Your task to perform on an android device: Search for "razer blackwidow" on amazon.com, select the first entry, add it to the cart, then select checkout. Image 0: 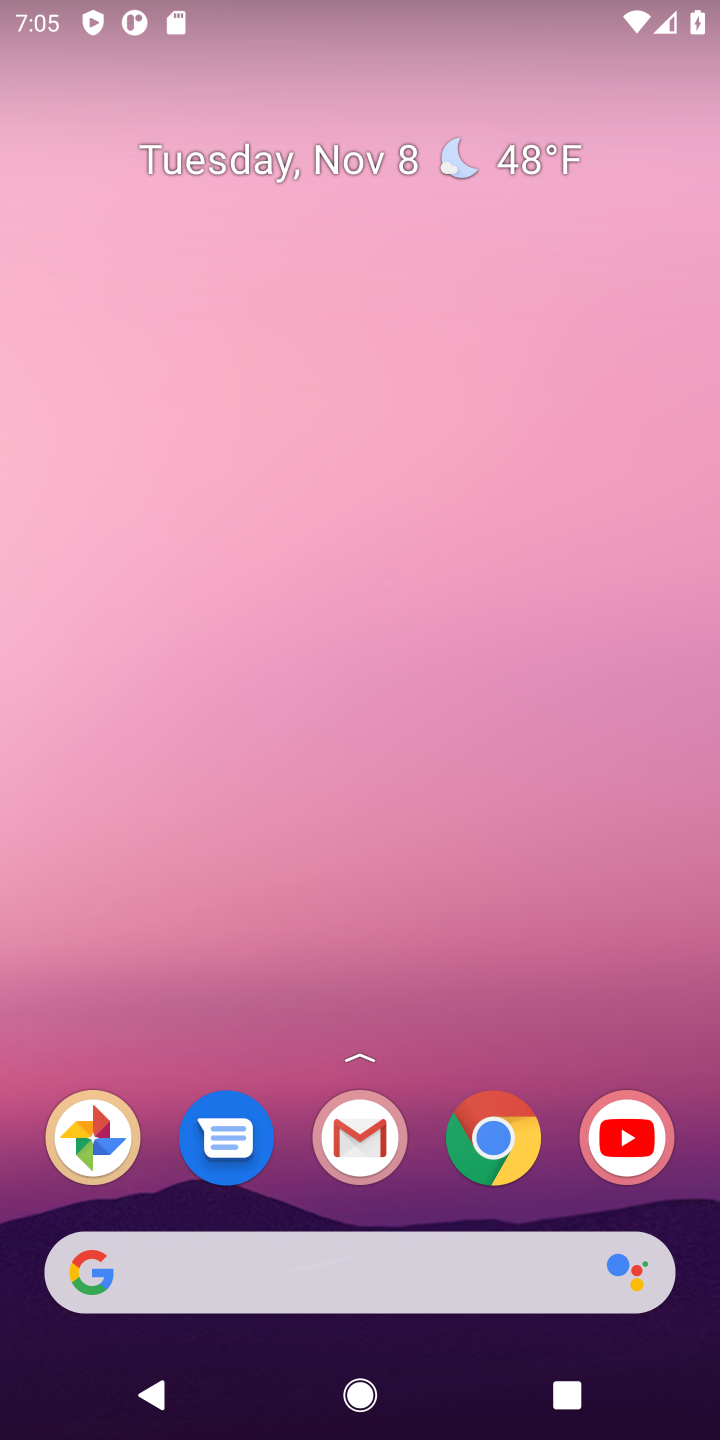
Step 0: click (496, 1143)
Your task to perform on an android device: Search for "razer blackwidow" on amazon.com, select the first entry, add it to the cart, then select checkout. Image 1: 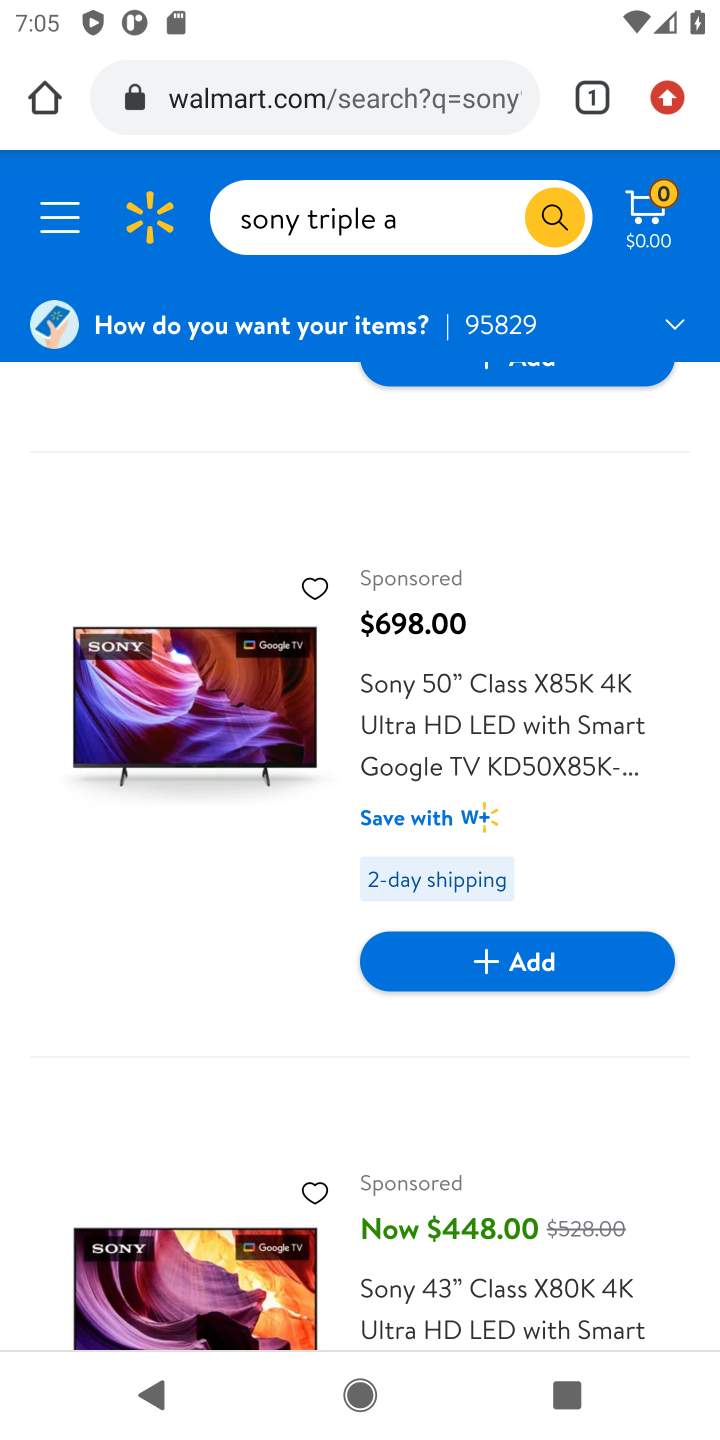
Step 1: click (478, 208)
Your task to perform on an android device: Search for "razer blackwidow" on amazon.com, select the first entry, add it to the cart, then select checkout. Image 2: 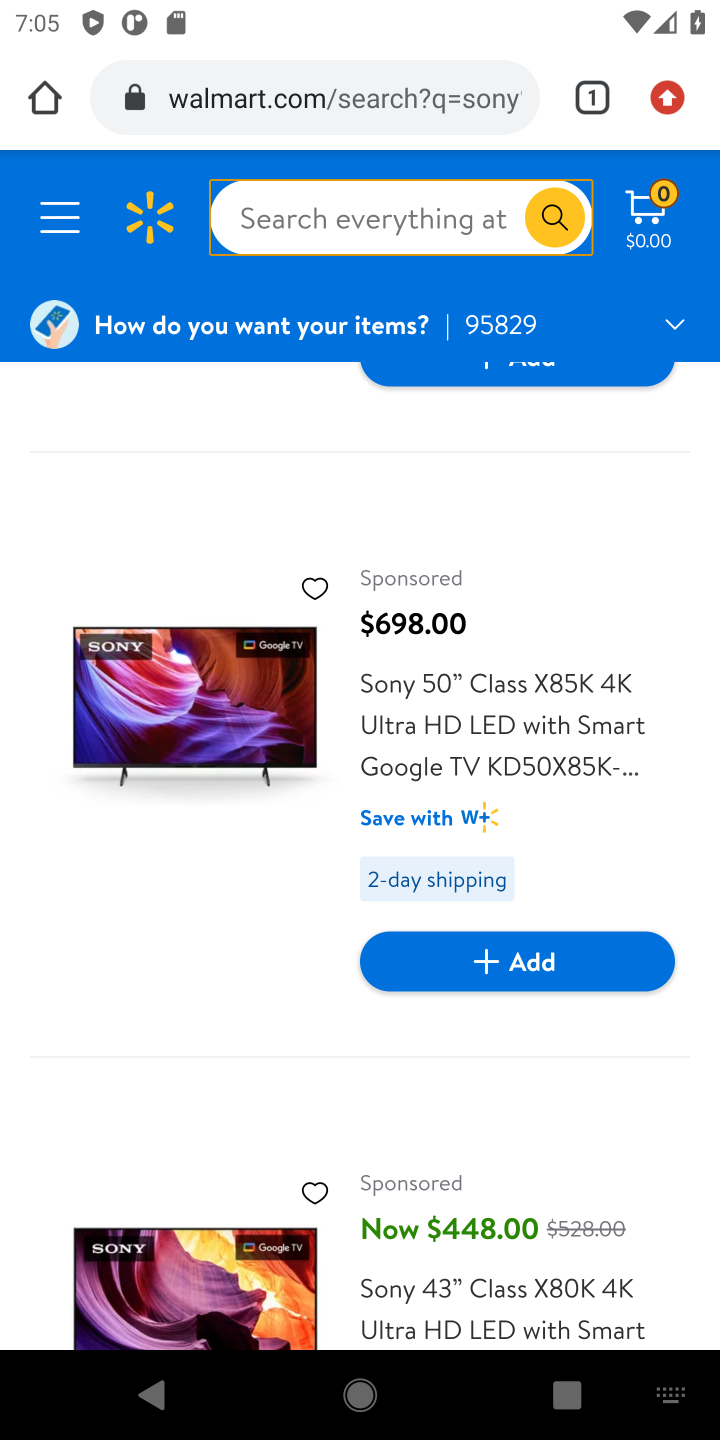
Step 2: click (425, 97)
Your task to perform on an android device: Search for "razer blackwidow" on amazon.com, select the first entry, add it to the cart, then select checkout. Image 3: 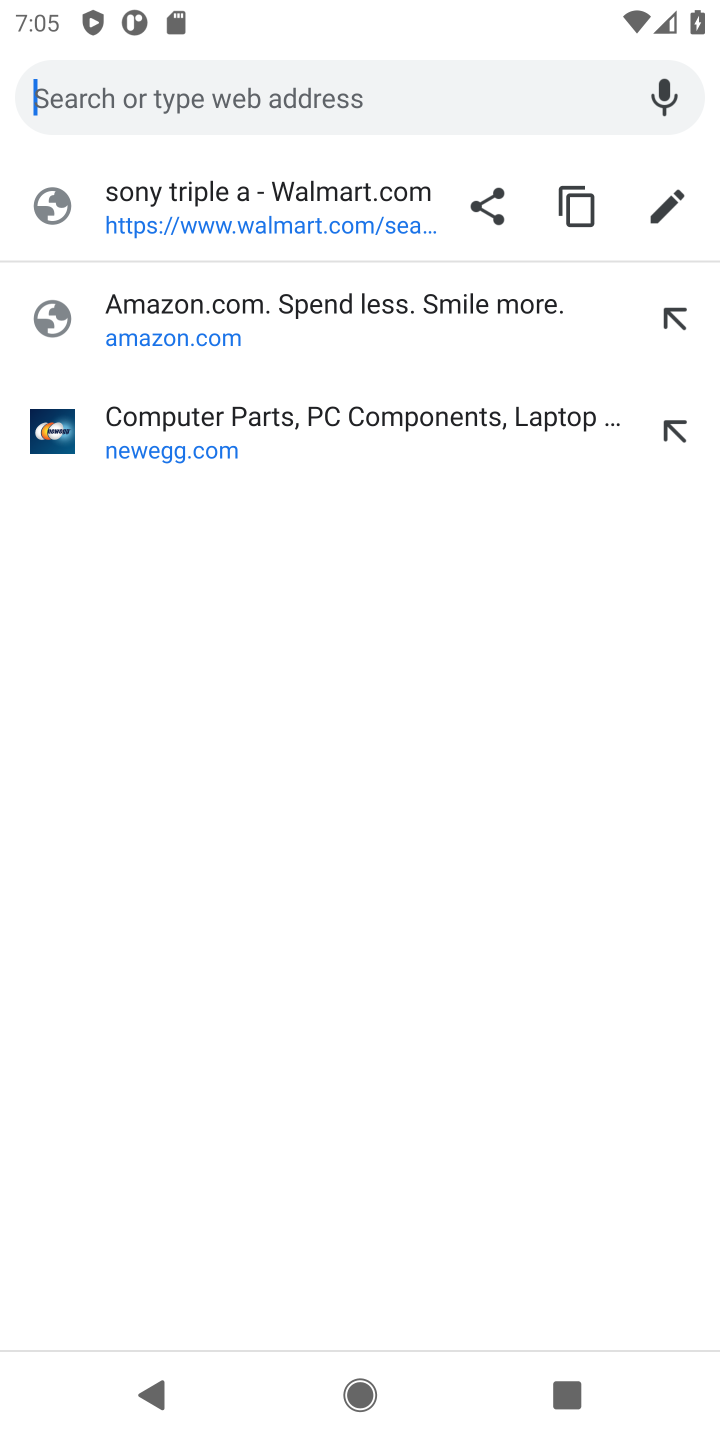
Step 3: click (208, 300)
Your task to perform on an android device: Search for "razer blackwidow" on amazon.com, select the first entry, add it to the cart, then select checkout. Image 4: 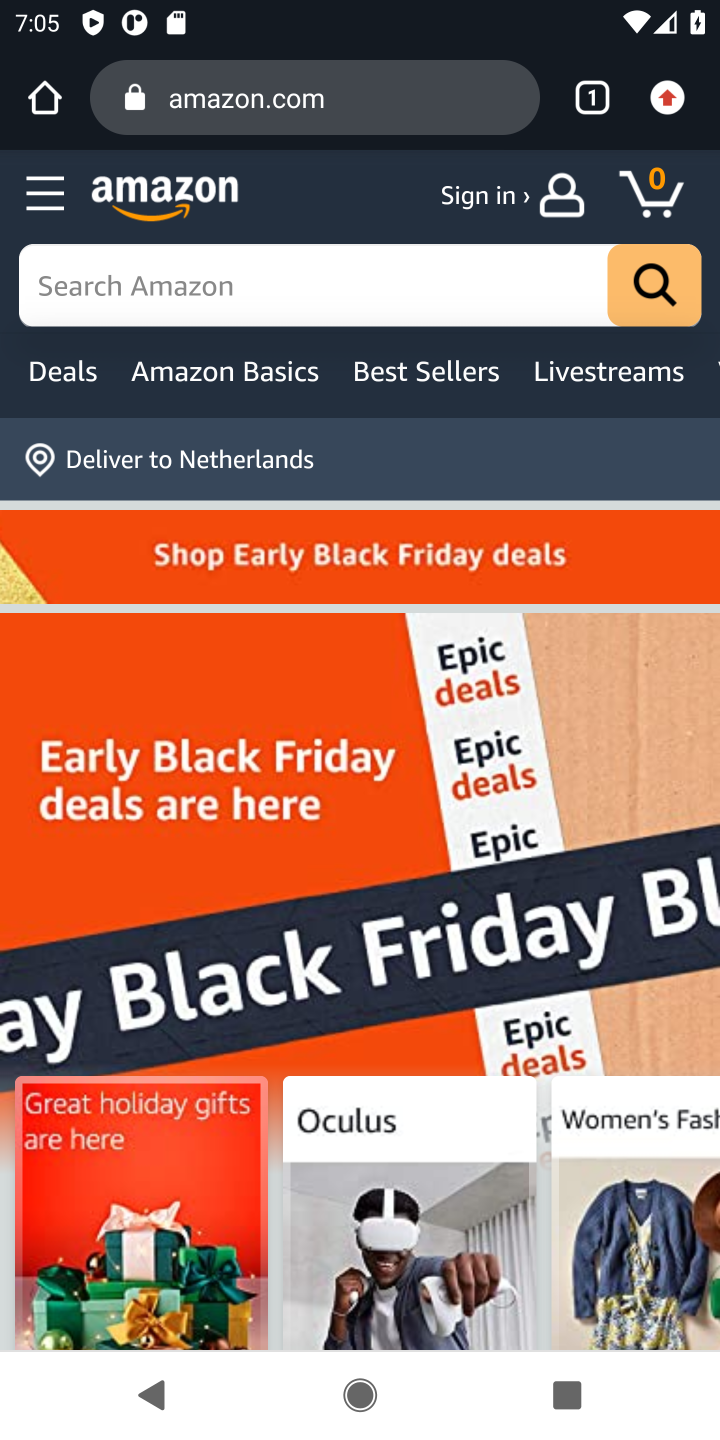
Step 4: click (200, 273)
Your task to perform on an android device: Search for "razer blackwidow" on amazon.com, select the first entry, add it to the cart, then select checkout. Image 5: 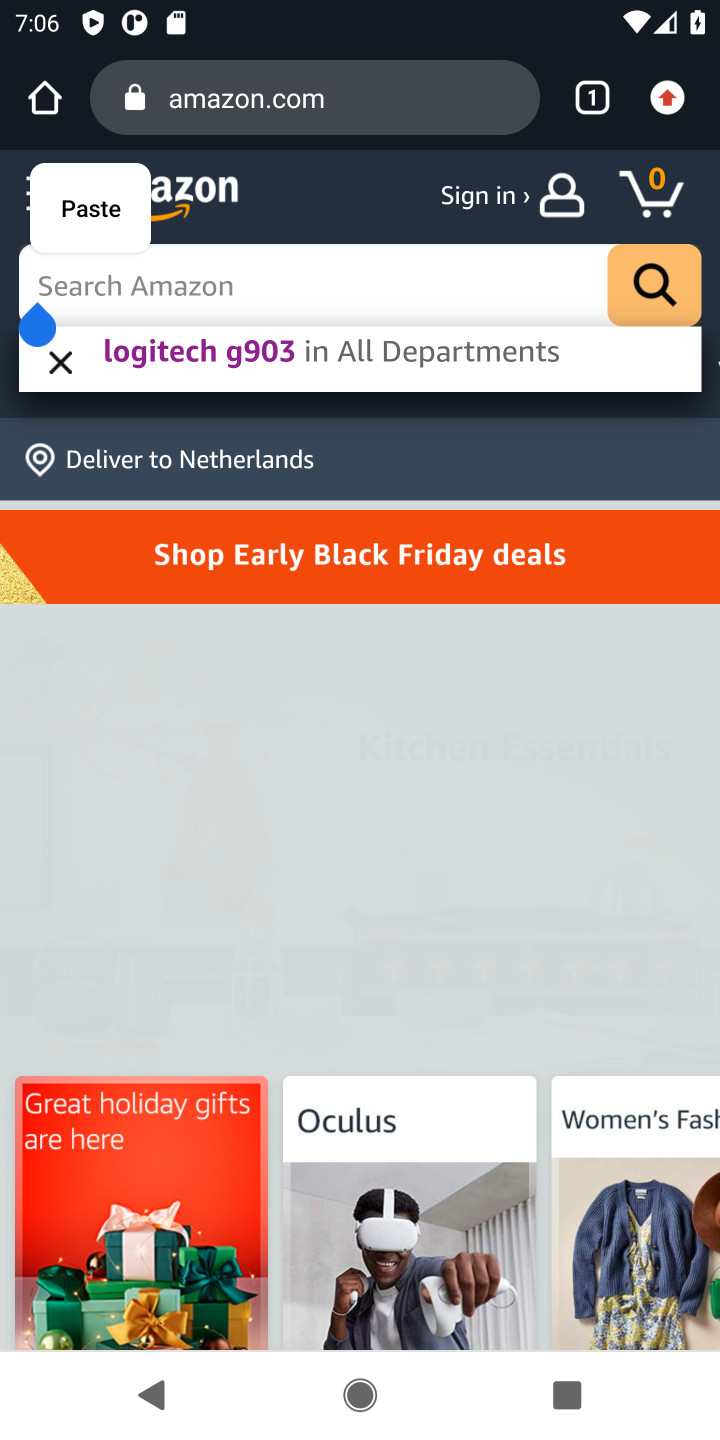
Step 5: type "razer blackwidow"
Your task to perform on an android device: Search for "razer blackwidow" on amazon.com, select the first entry, add it to the cart, then select checkout. Image 6: 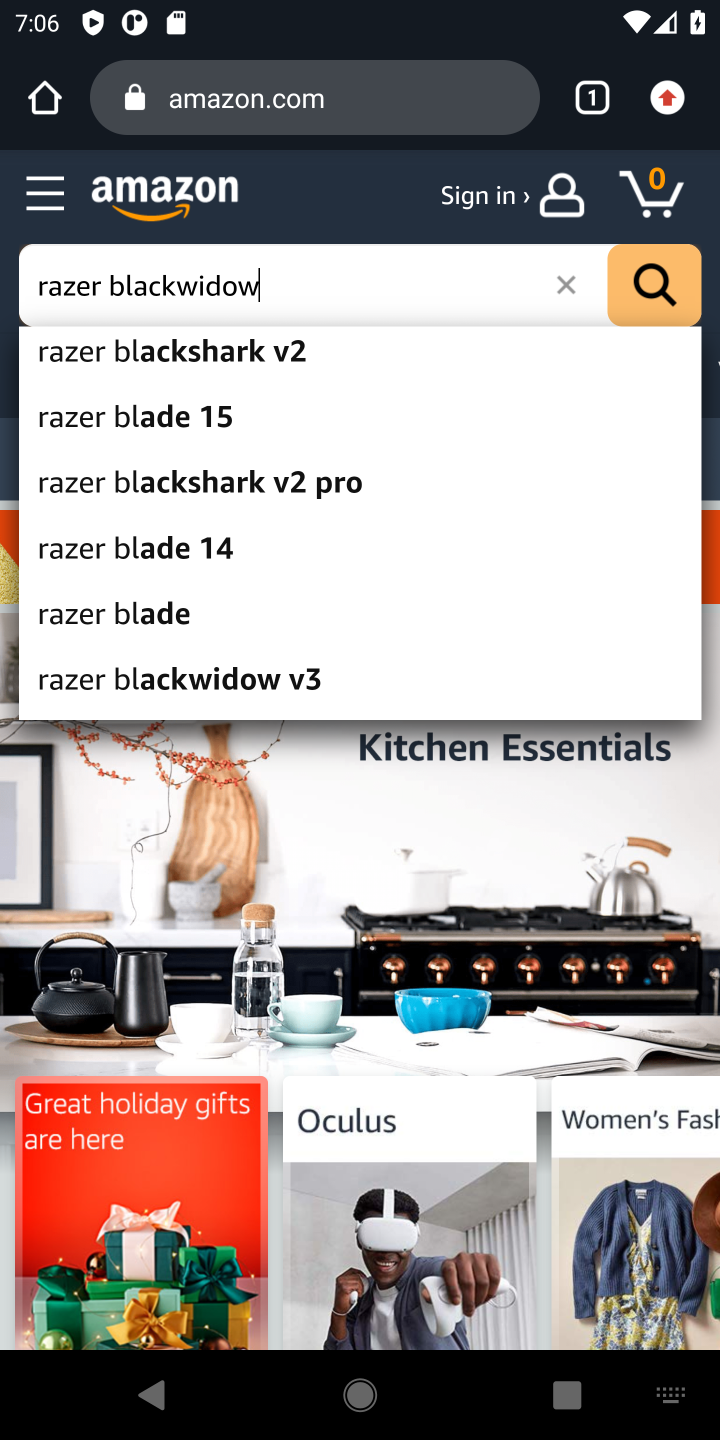
Step 6: press enter
Your task to perform on an android device: Search for "razer blackwidow" on amazon.com, select the first entry, add it to the cart, then select checkout. Image 7: 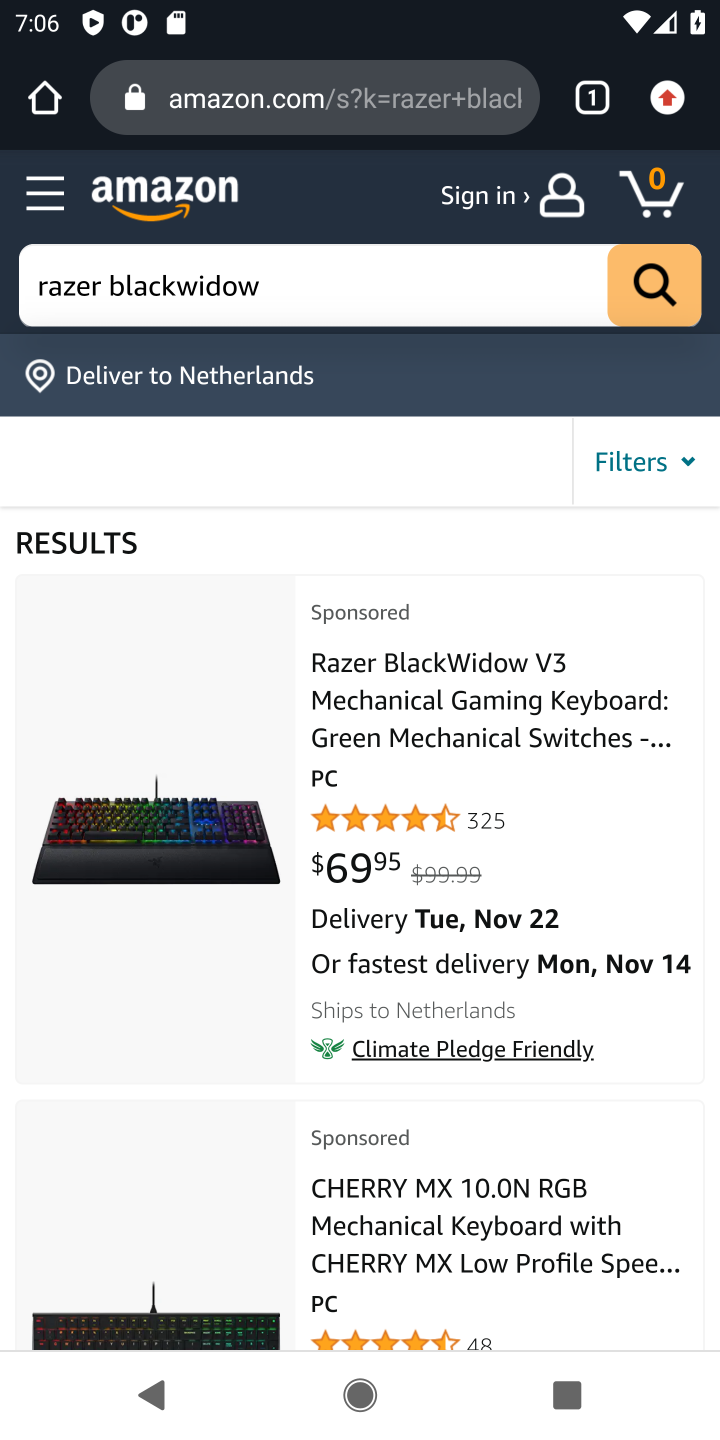
Step 7: click (519, 691)
Your task to perform on an android device: Search for "razer blackwidow" on amazon.com, select the first entry, add it to the cart, then select checkout. Image 8: 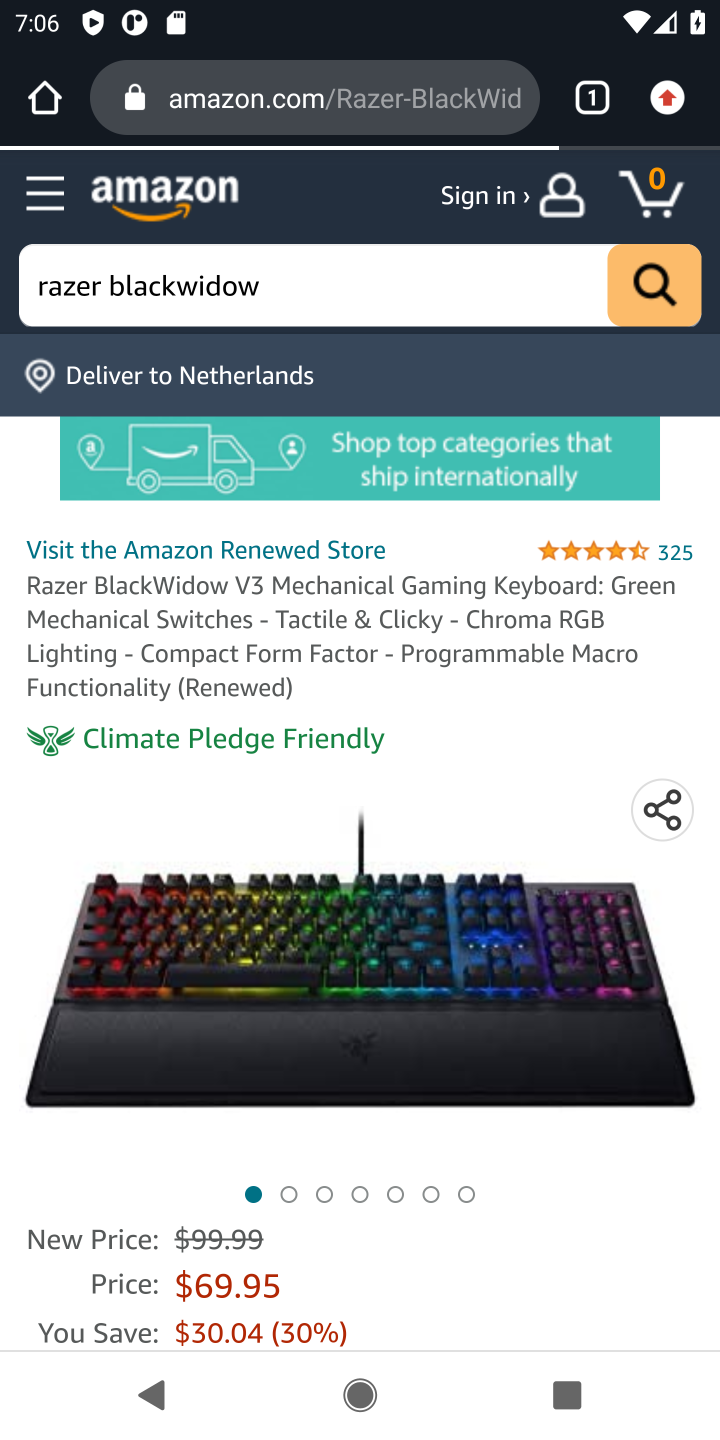
Step 8: drag from (494, 1299) to (554, 412)
Your task to perform on an android device: Search for "razer blackwidow" on amazon.com, select the first entry, add it to the cart, then select checkout. Image 9: 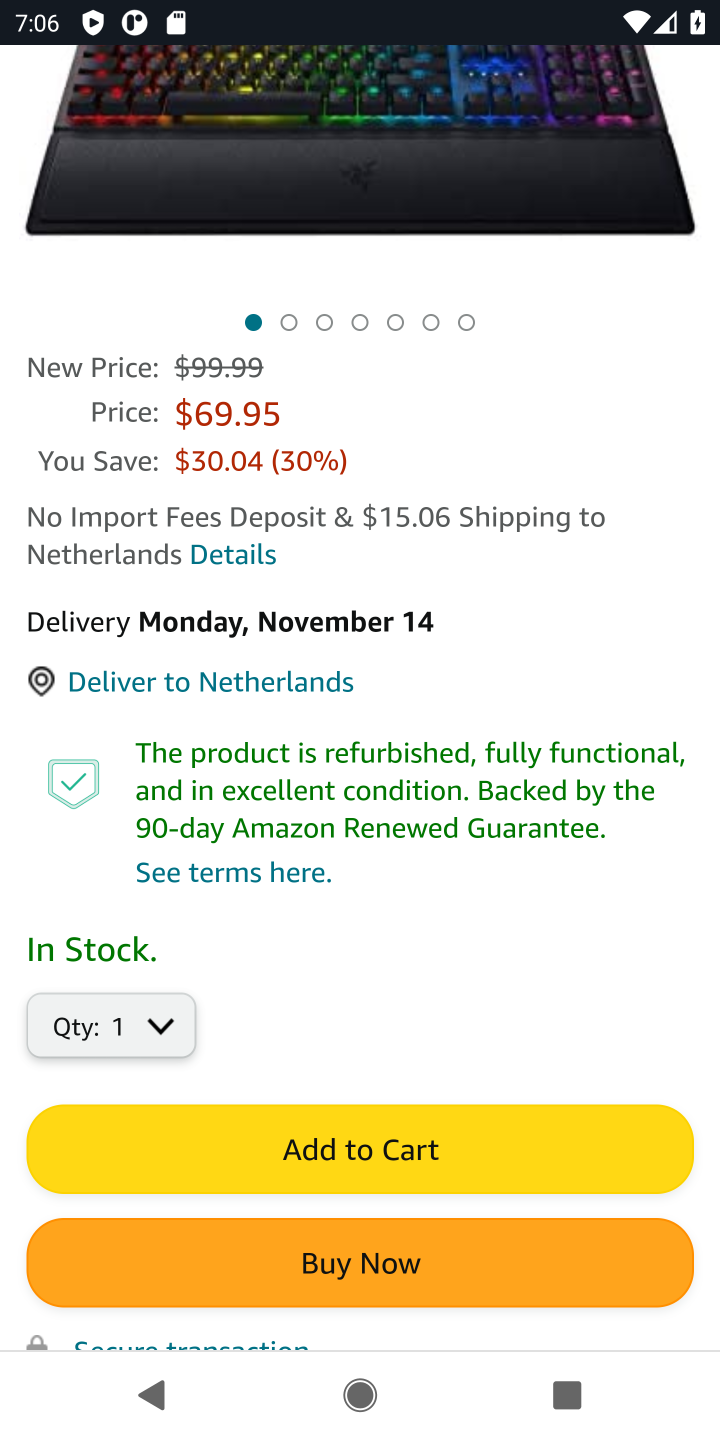
Step 9: click (346, 1147)
Your task to perform on an android device: Search for "razer blackwidow" on amazon.com, select the first entry, add it to the cart, then select checkout. Image 10: 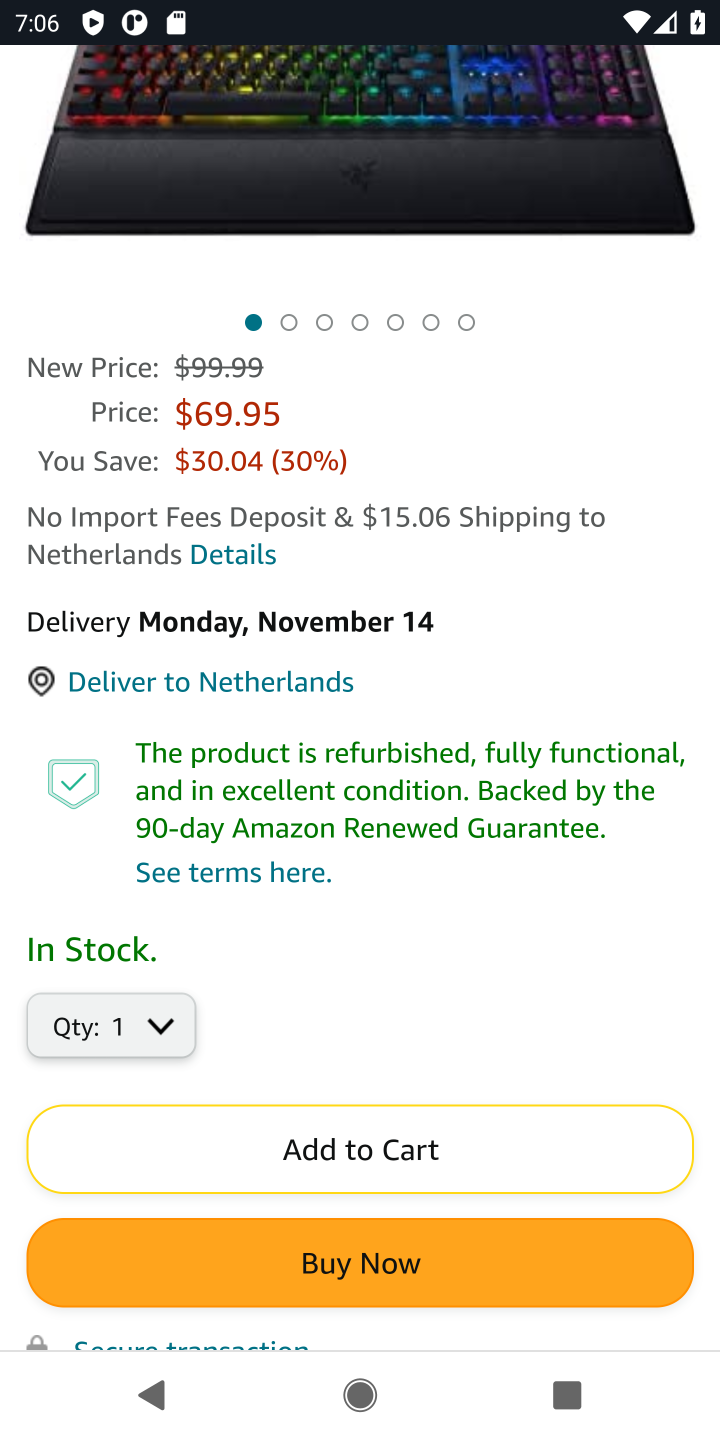
Step 10: drag from (632, 397) to (561, 1348)
Your task to perform on an android device: Search for "razer blackwidow" on amazon.com, select the first entry, add it to the cart, then select checkout. Image 11: 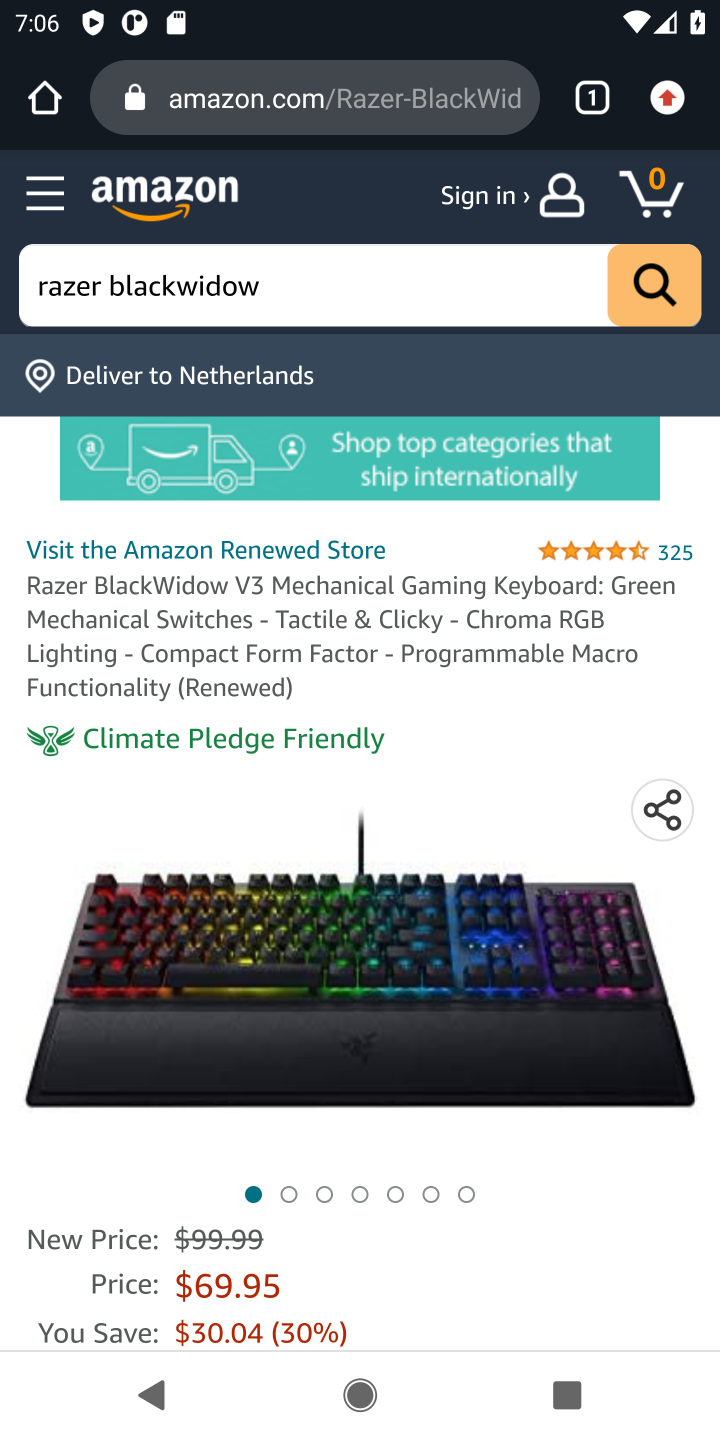
Step 11: drag from (502, 1134) to (569, 191)
Your task to perform on an android device: Search for "razer blackwidow" on amazon.com, select the first entry, add it to the cart, then select checkout. Image 12: 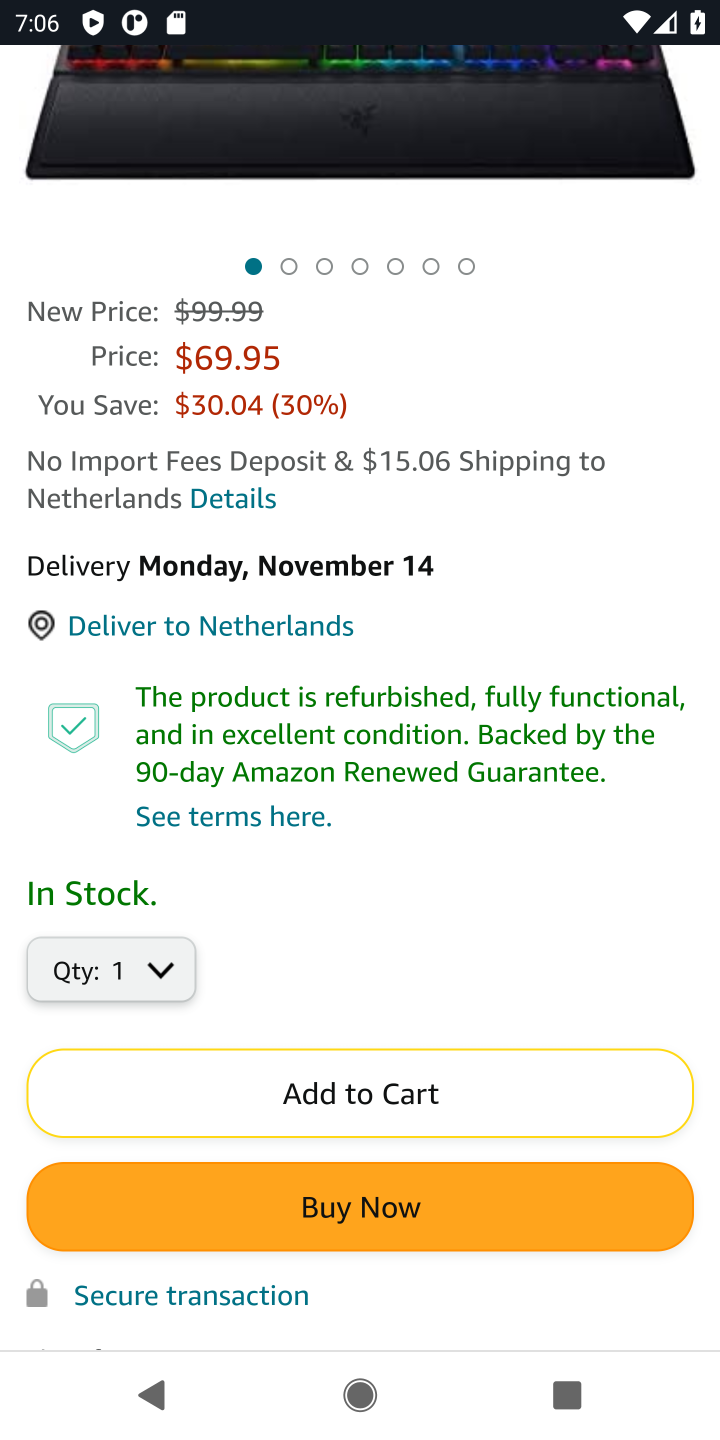
Step 12: click (357, 1087)
Your task to perform on an android device: Search for "razer blackwidow" on amazon.com, select the first entry, add it to the cart, then select checkout. Image 13: 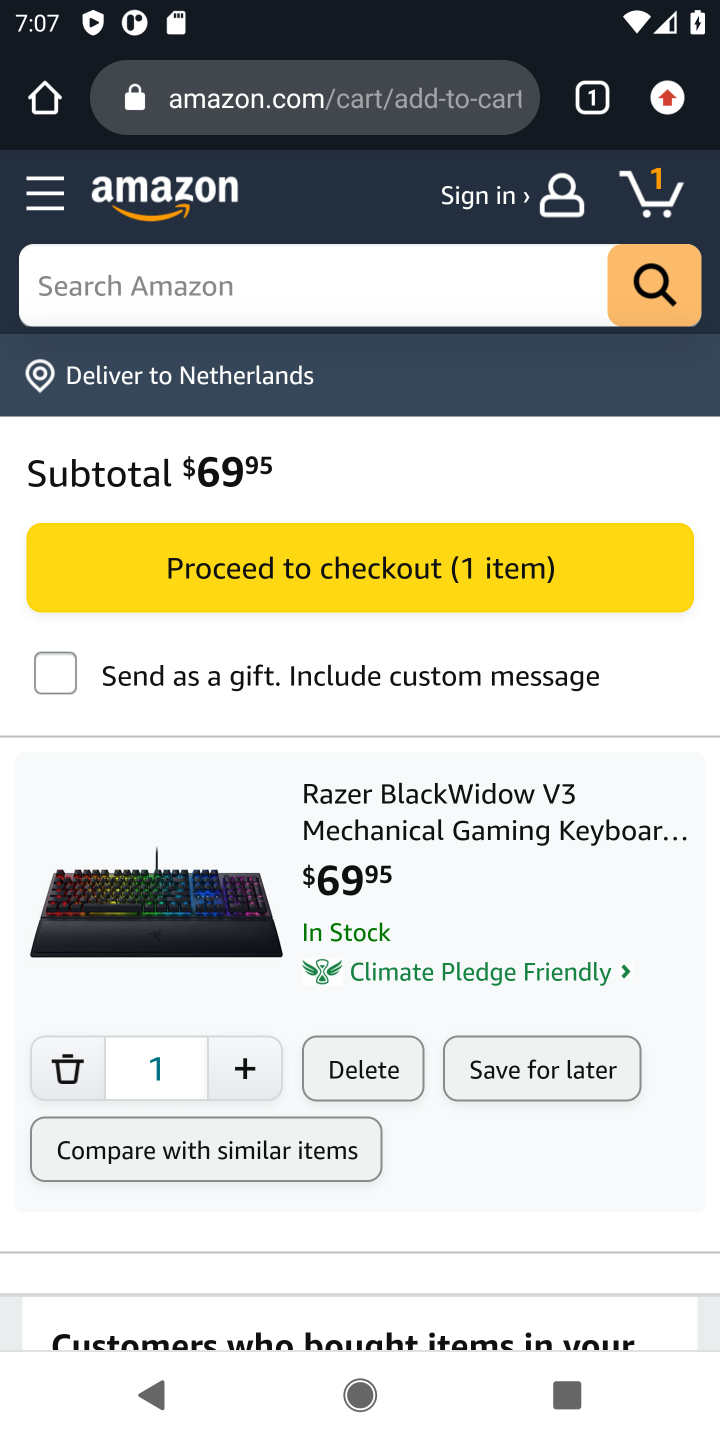
Step 13: click (661, 184)
Your task to perform on an android device: Search for "razer blackwidow" on amazon.com, select the first entry, add it to the cart, then select checkout. Image 14: 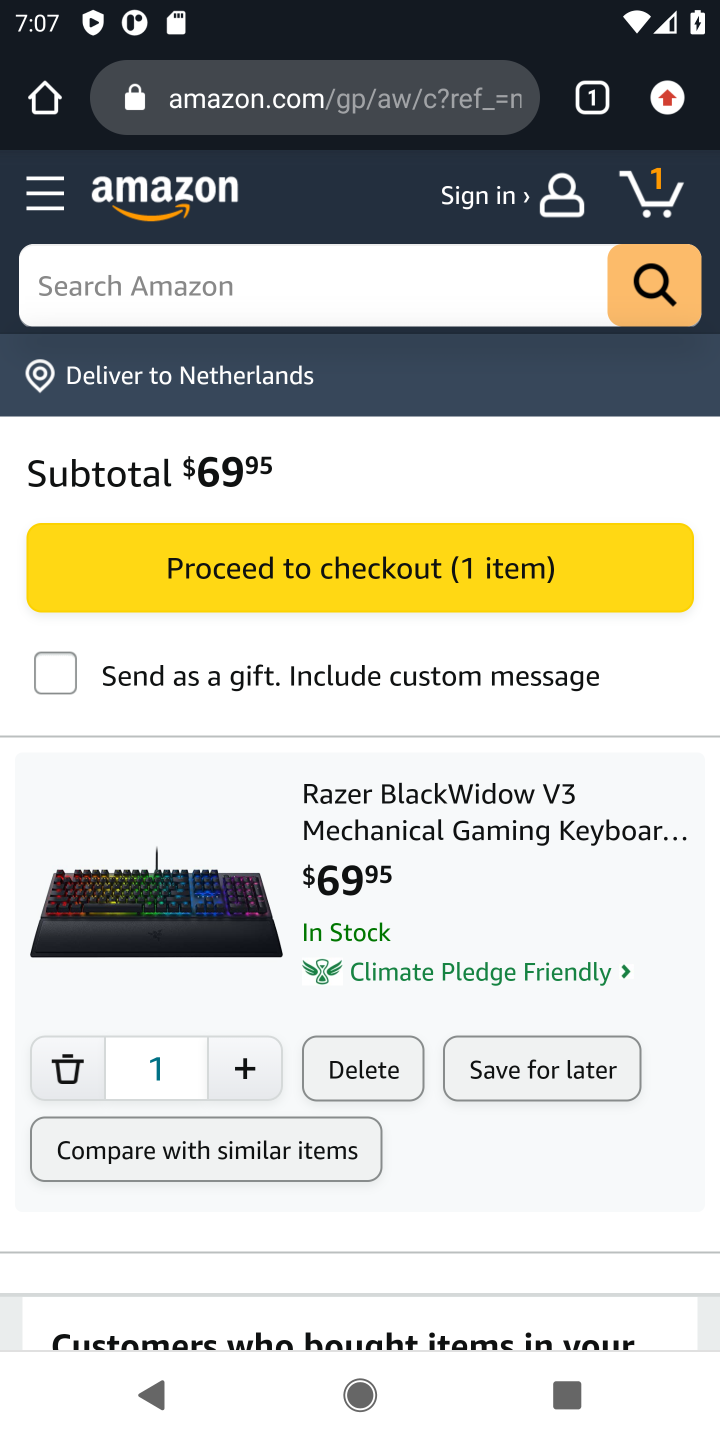
Step 14: click (408, 566)
Your task to perform on an android device: Search for "razer blackwidow" on amazon.com, select the first entry, add it to the cart, then select checkout. Image 15: 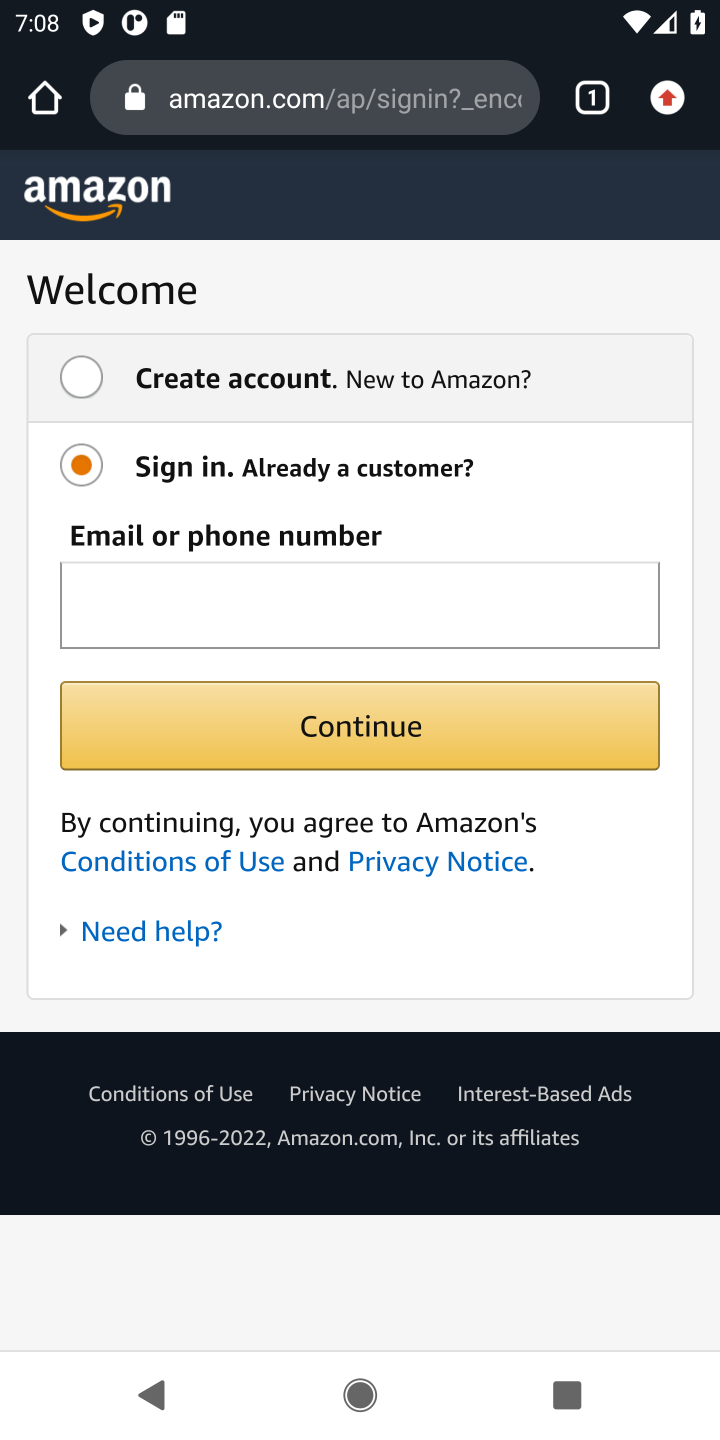
Step 15: task complete